Your task to perform on an android device: turn smart compose on in the gmail app Image 0: 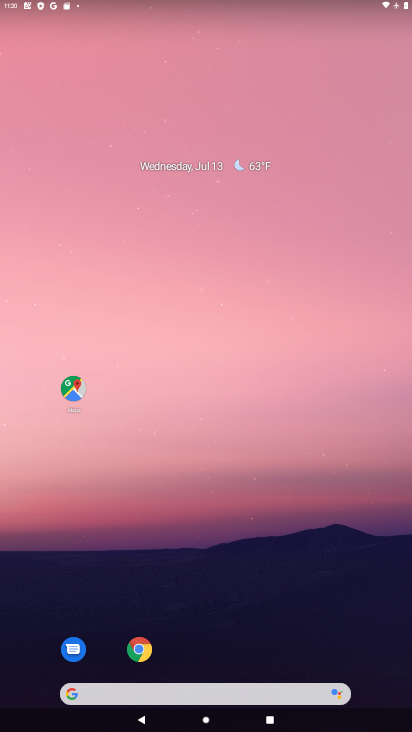
Step 0: drag from (208, 612) to (226, 249)
Your task to perform on an android device: turn smart compose on in the gmail app Image 1: 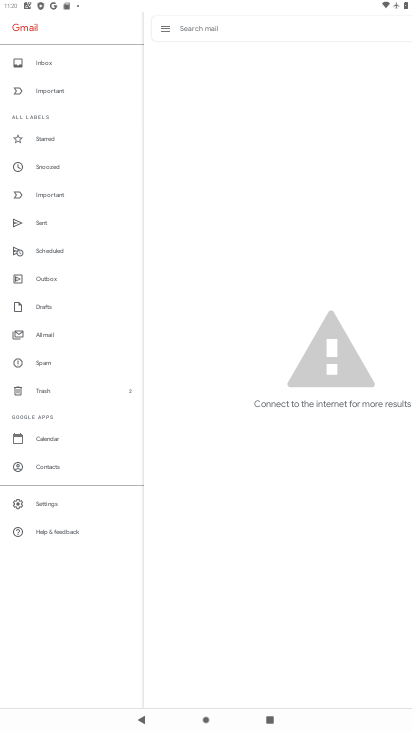
Step 1: click (27, 505)
Your task to perform on an android device: turn smart compose on in the gmail app Image 2: 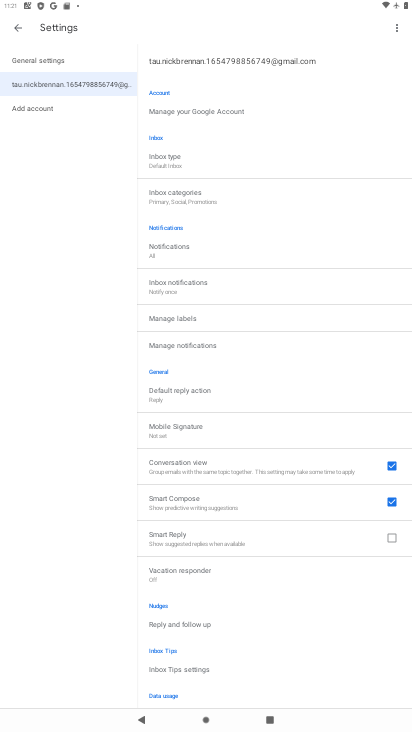
Step 2: task complete